Your task to perform on an android device: turn off wifi Image 0: 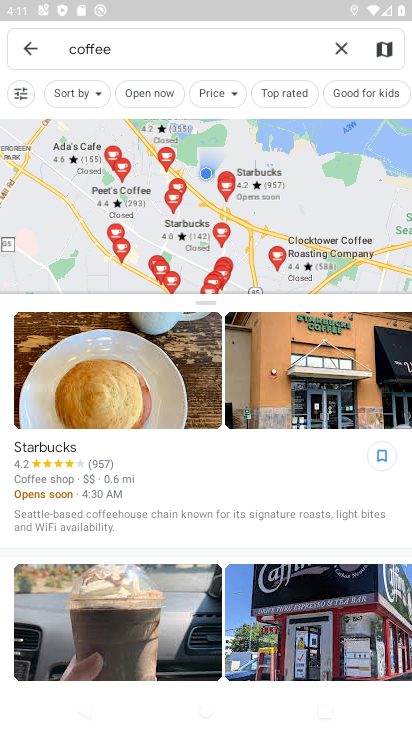
Step 0: drag from (190, 9) to (182, 557)
Your task to perform on an android device: turn off wifi Image 1: 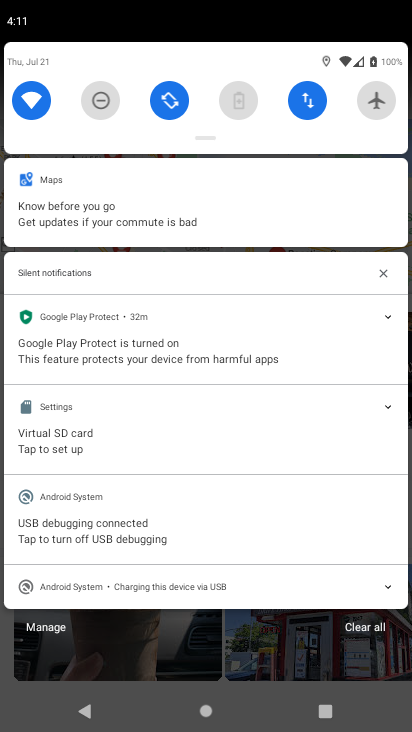
Step 1: click (33, 102)
Your task to perform on an android device: turn off wifi Image 2: 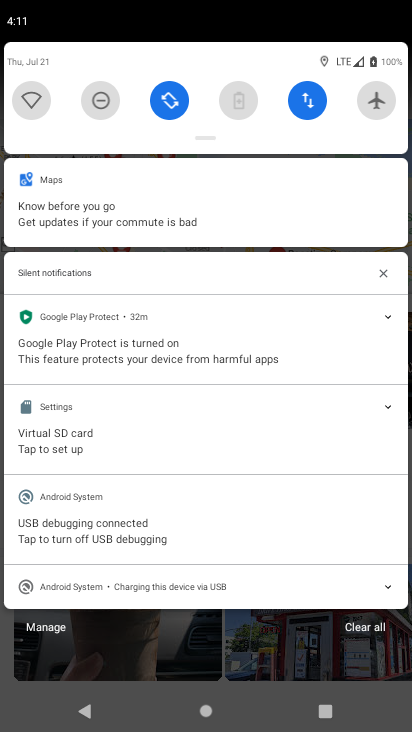
Step 2: task complete